Your task to perform on an android device: Open Yahoo.com Image 0: 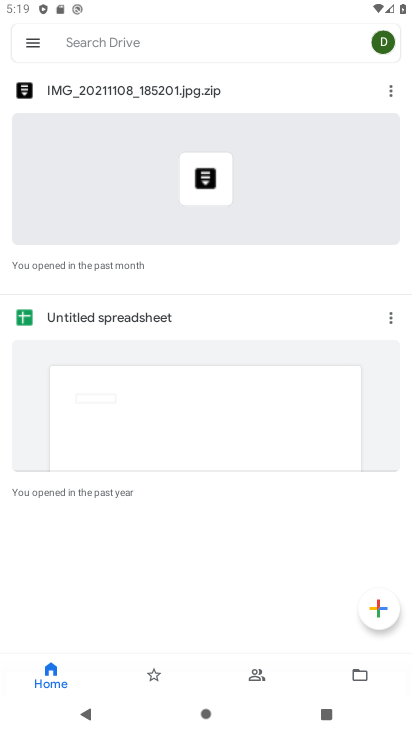
Step 0: press home button
Your task to perform on an android device: Open Yahoo.com Image 1: 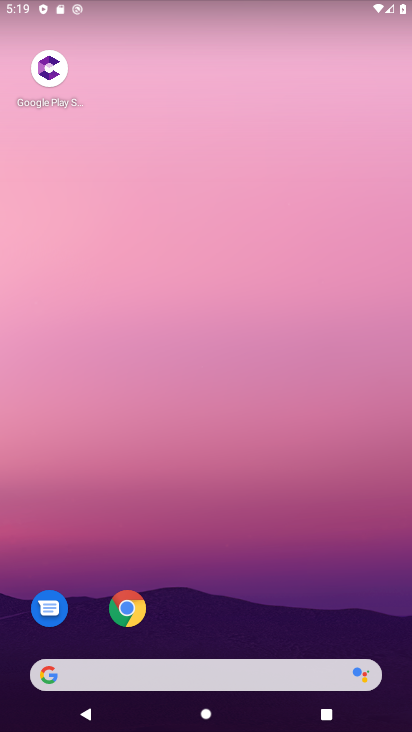
Step 1: click (162, 18)
Your task to perform on an android device: Open Yahoo.com Image 2: 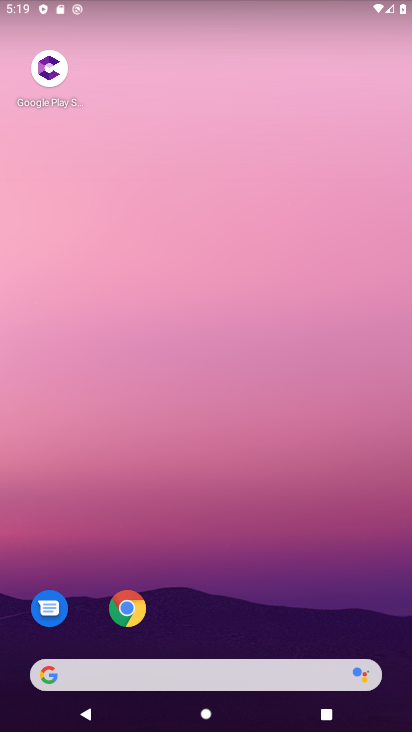
Step 2: drag from (282, 630) to (218, 278)
Your task to perform on an android device: Open Yahoo.com Image 3: 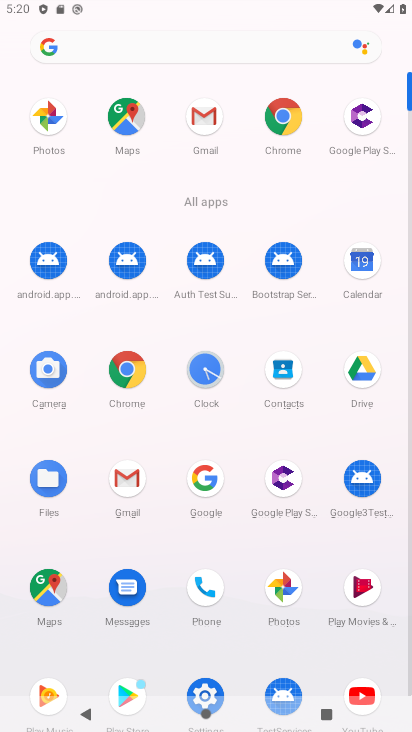
Step 3: click (292, 120)
Your task to perform on an android device: Open Yahoo.com Image 4: 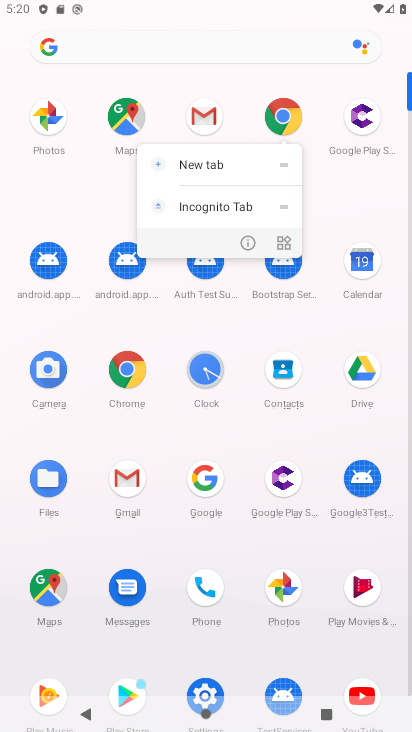
Step 4: click (233, 79)
Your task to perform on an android device: Open Yahoo.com Image 5: 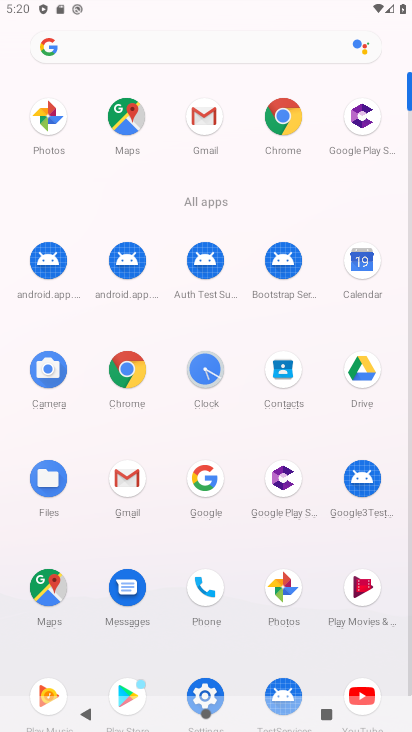
Step 5: click (275, 104)
Your task to perform on an android device: Open Yahoo.com Image 6: 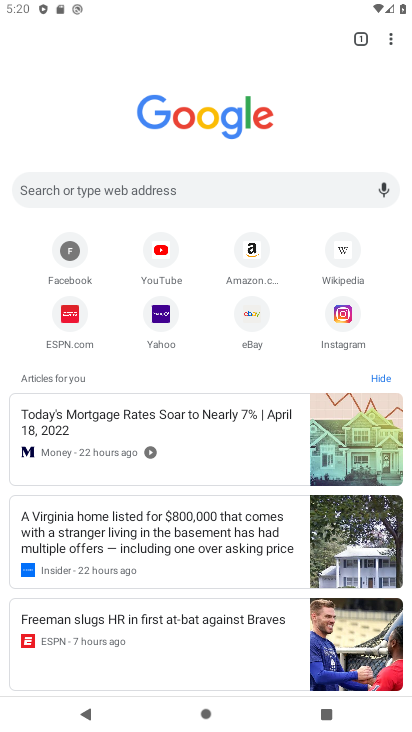
Step 6: click (156, 326)
Your task to perform on an android device: Open Yahoo.com Image 7: 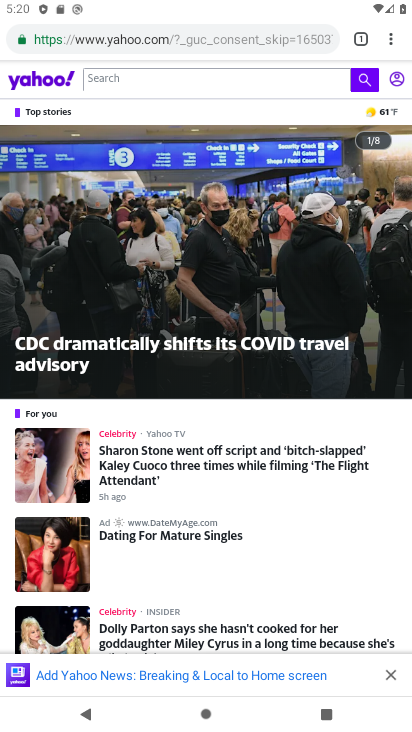
Step 7: task complete